Your task to perform on an android device: Go to location settings Image 0: 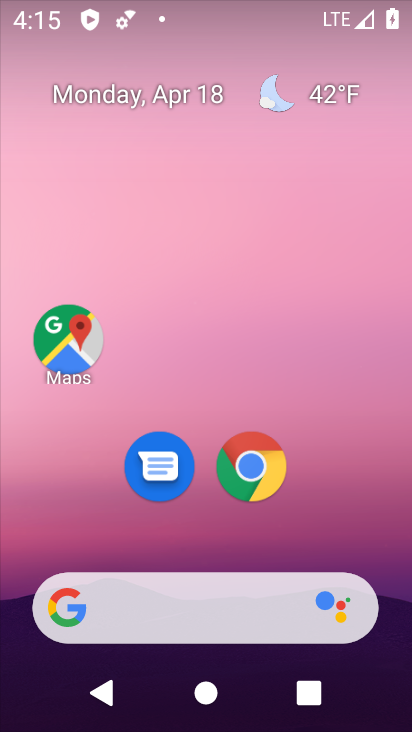
Step 0: drag from (379, 549) to (333, 14)
Your task to perform on an android device: Go to location settings Image 1: 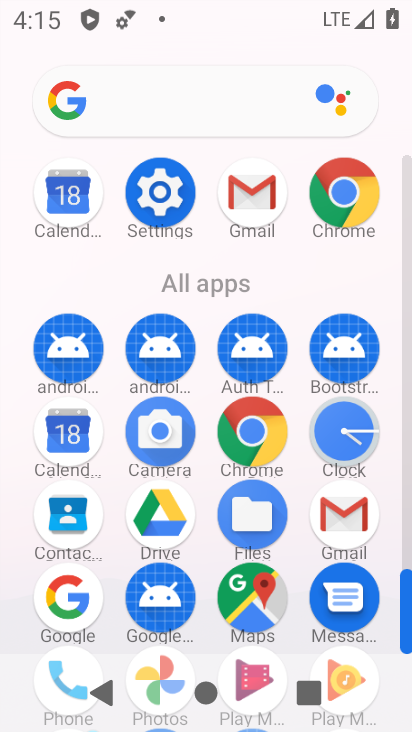
Step 1: click (402, 530)
Your task to perform on an android device: Go to location settings Image 2: 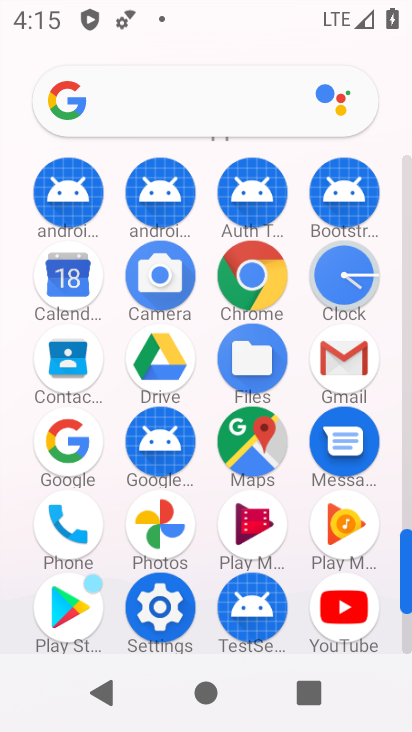
Step 2: click (158, 606)
Your task to perform on an android device: Go to location settings Image 3: 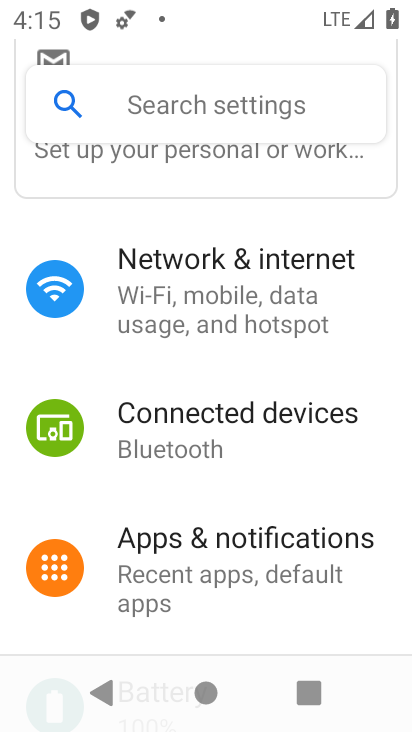
Step 3: drag from (339, 598) to (351, 266)
Your task to perform on an android device: Go to location settings Image 4: 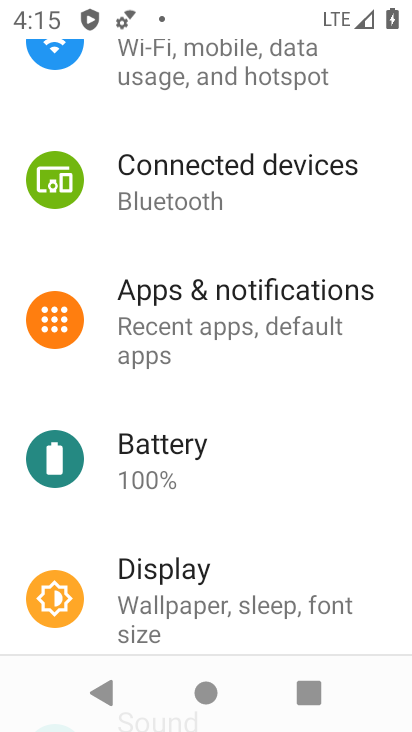
Step 4: drag from (354, 516) to (355, 286)
Your task to perform on an android device: Go to location settings Image 5: 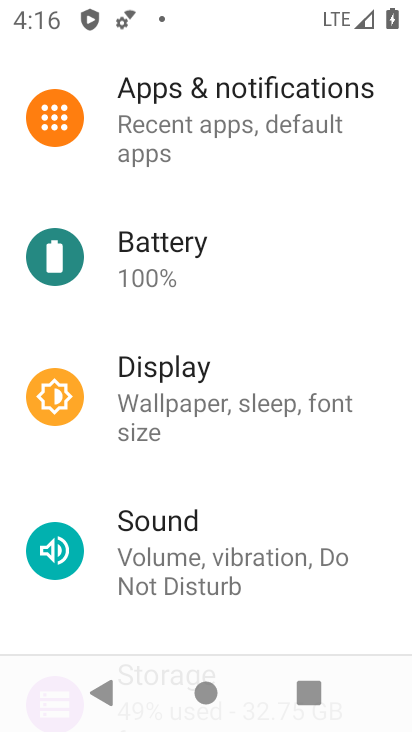
Step 5: drag from (314, 583) to (316, 322)
Your task to perform on an android device: Go to location settings Image 6: 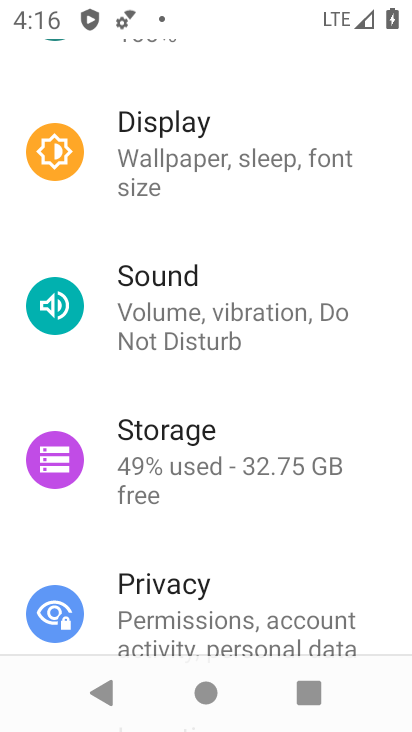
Step 6: drag from (292, 562) to (310, 123)
Your task to perform on an android device: Go to location settings Image 7: 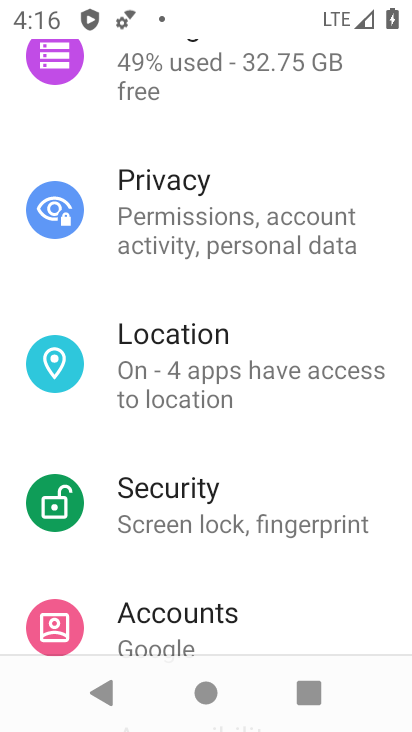
Step 7: click (175, 373)
Your task to perform on an android device: Go to location settings Image 8: 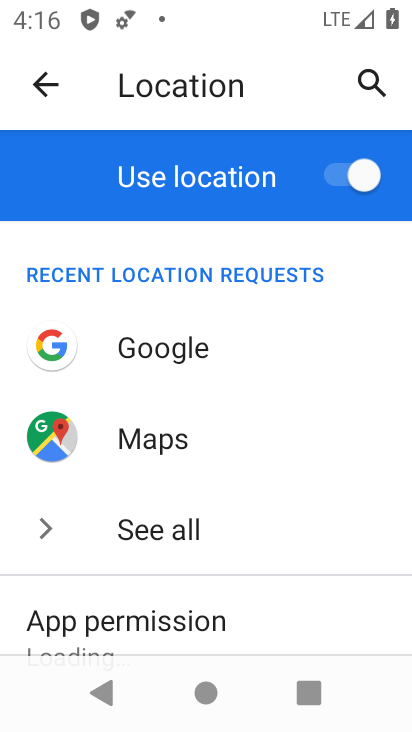
Step 8: drag from (333, 586) to (303, 169)
Your task to perform on an android device: Go to location settings Image 9: 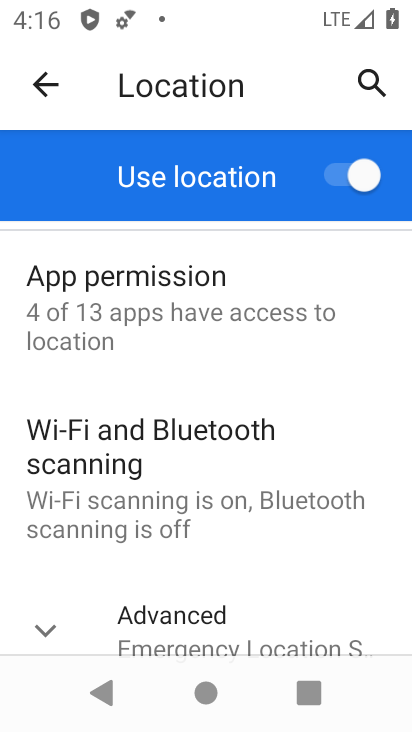
Step 9: drag from (278, 505) to (300, 210)
Your task to perform on an android device: Go to location settings Image 10: 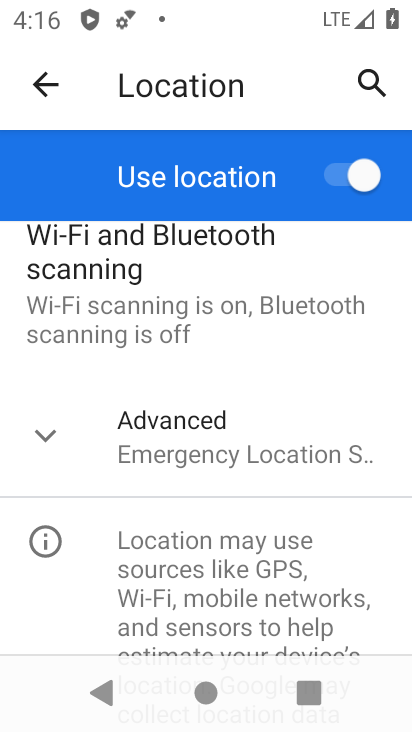
Step 10: click (35, 439)
Your task to perform on an android device: Go to location settings Image 11: 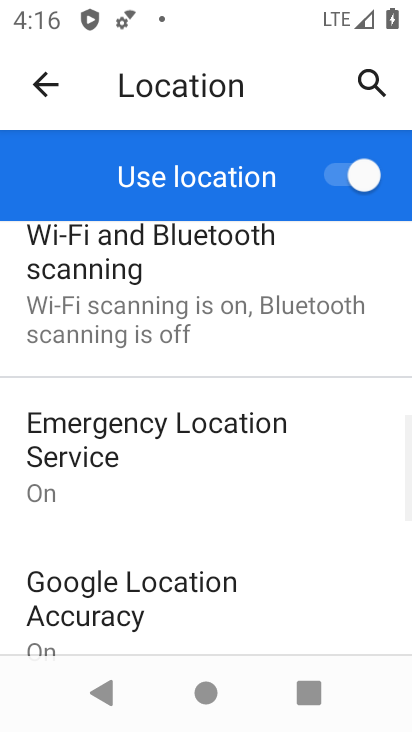
Step 11: task complete